Your task to perform on an android device: When is my next appointment? Image 0: 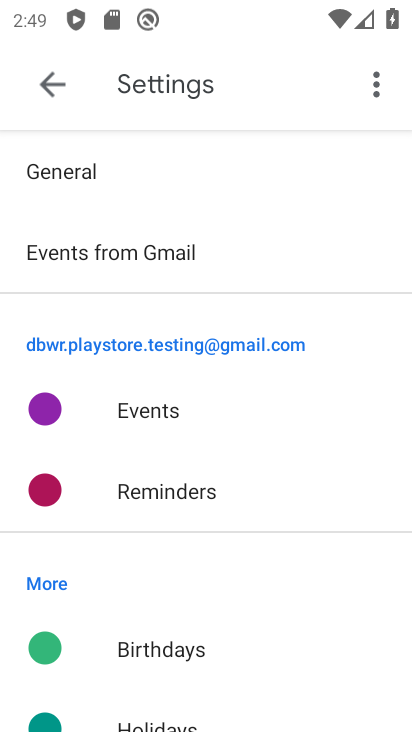
Step 0: press home button
Your task to perform on an android device: When is my next appointment? Image 1: 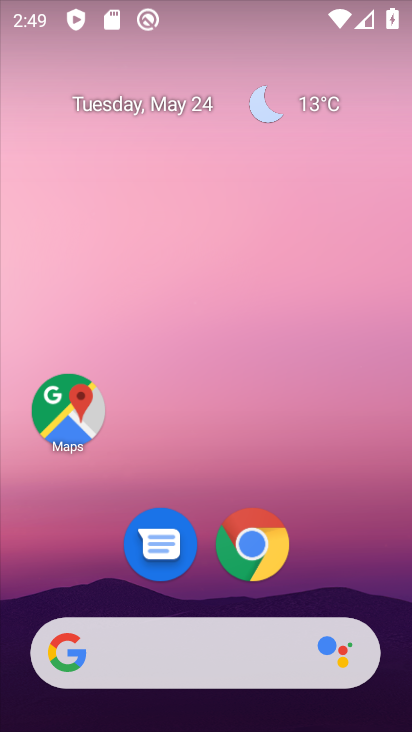
Step 1: drag from (405, 519) to (407, 61)
Your task to perform on an android device: When is my next appointment? Image 2: 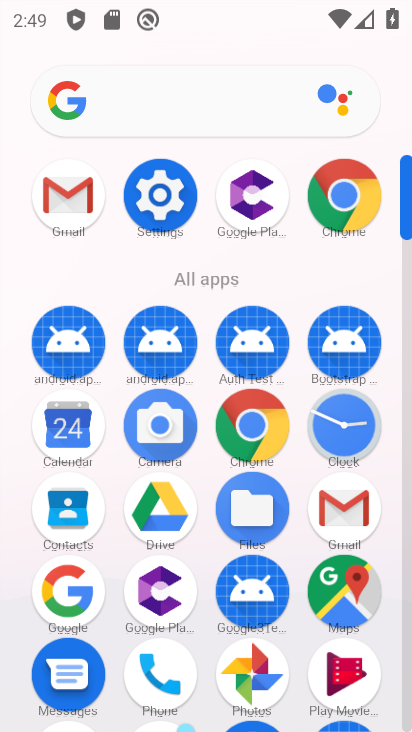
Step 2: click (78, 437)
Your task to perform on an android device: When is my next appointment? Image 3: 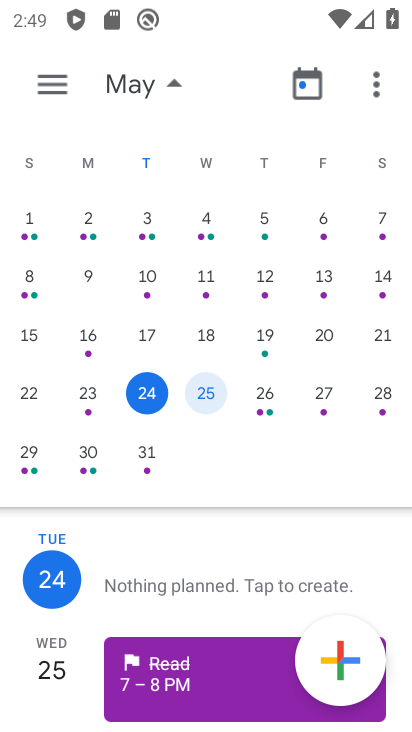
Step 3: click (267, 408)
Your task to perform on an android device: When is my next appointment? Image 4: 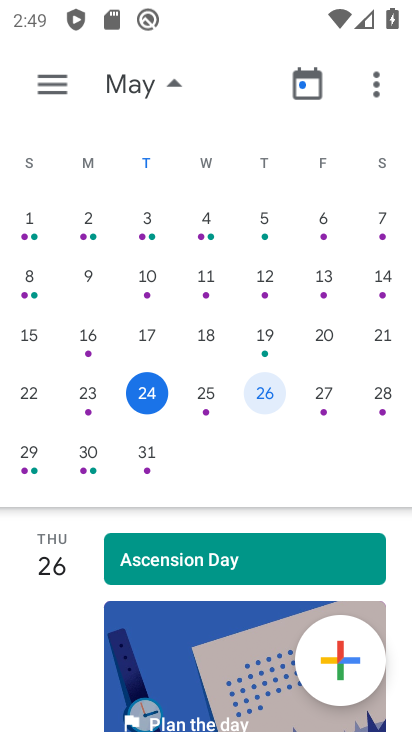
Step 4: task complete